Your task to perform on an android device: turn notification dots on Image 0: 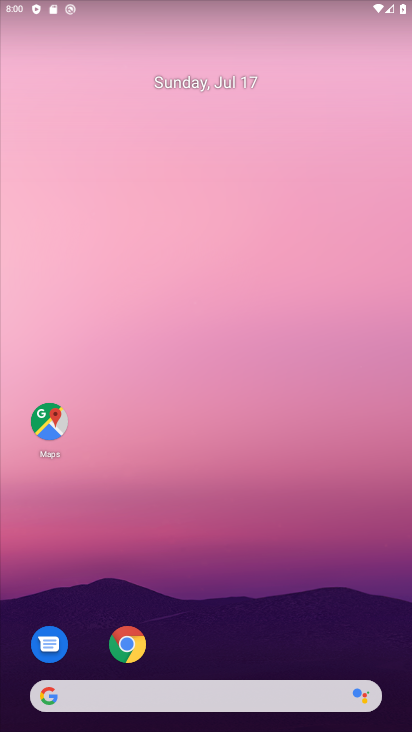
Step 0: drag from (271, 676) to (242, 31)
Your task to perform on an android device: turn notification dots on Image 1: 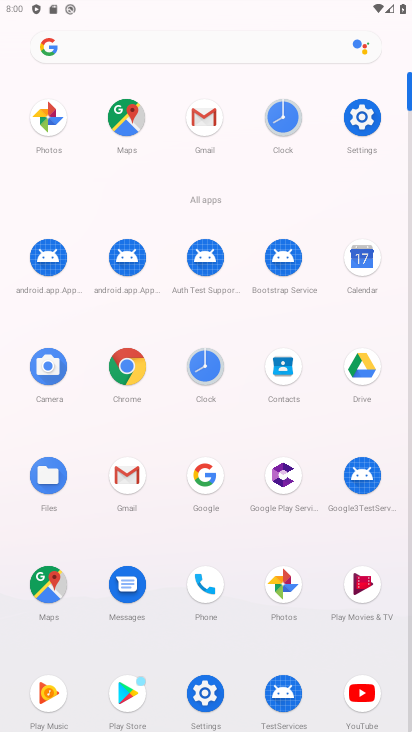
Step 1: click (364, 123)
Your task to perform on an android device: turn notification dots on Image 2: 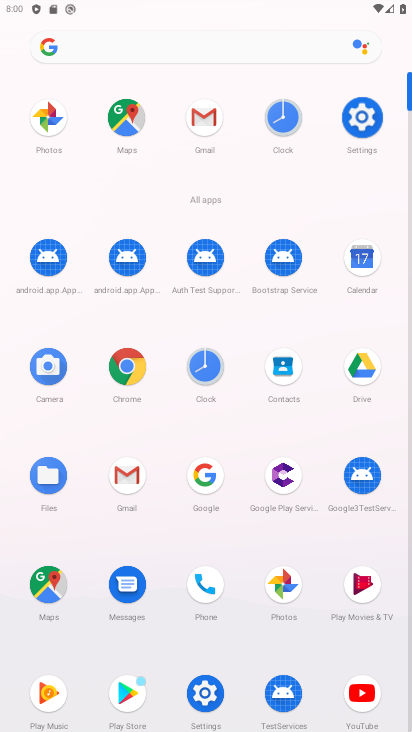
Step 2: click (358, 126)
Your task to perform on an android device: turn notification dots on Image 3: 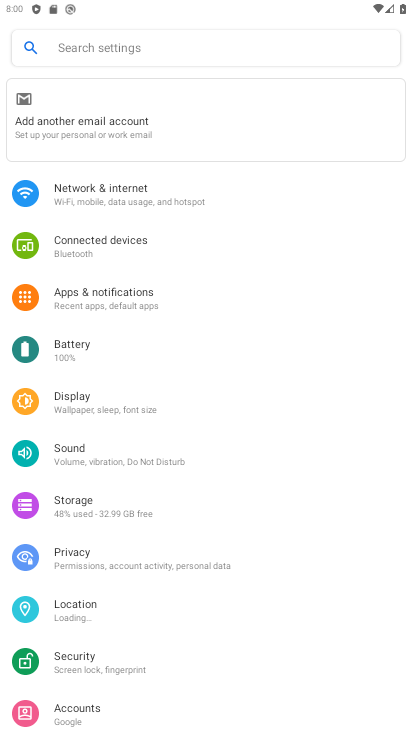
Step 3: click (118, 296)
Your task to perform on an android device: turn notification dots on Image 4: 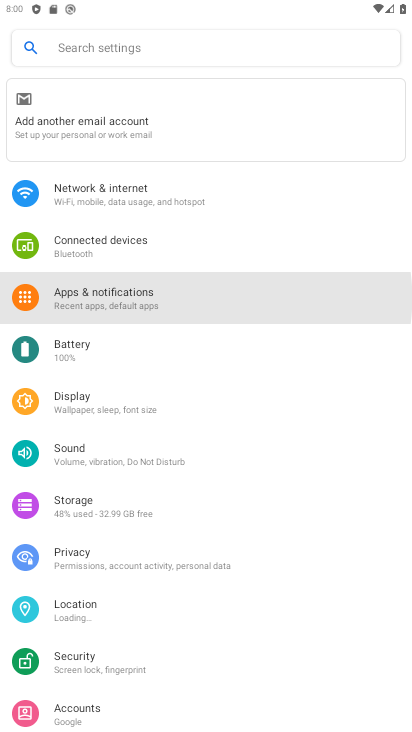
Step 4: click (114, 298)
Your task to perform on an android device: turn notification dots on Image 5: 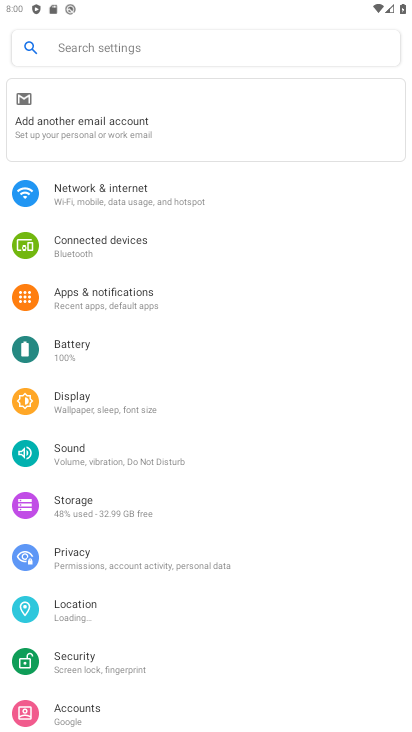
Step 5: click (114, 299)
Your task to perform on an android device: turn notification dots on Image 6: 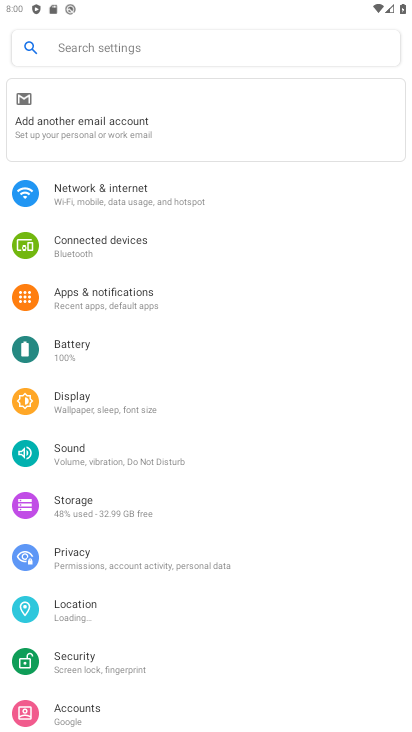
Step 6: click (113, 300)
Your task to perform on an android device: turn notification dots on Image 7: 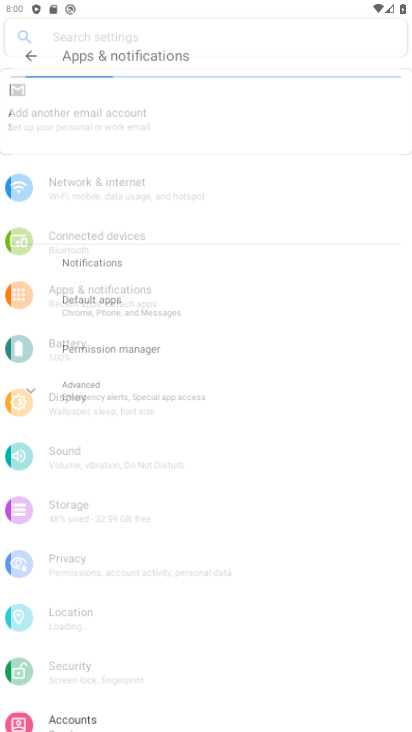
Step 7: click (101, 293)
Your task to perform on an android device: turn notification dots on Image 8: 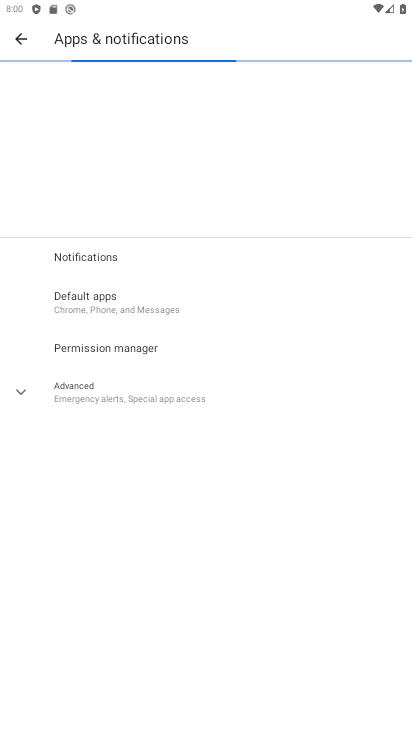
Step 8: click (101, 291)
Your task to perform on an android device: turn notification dots on Image 9: 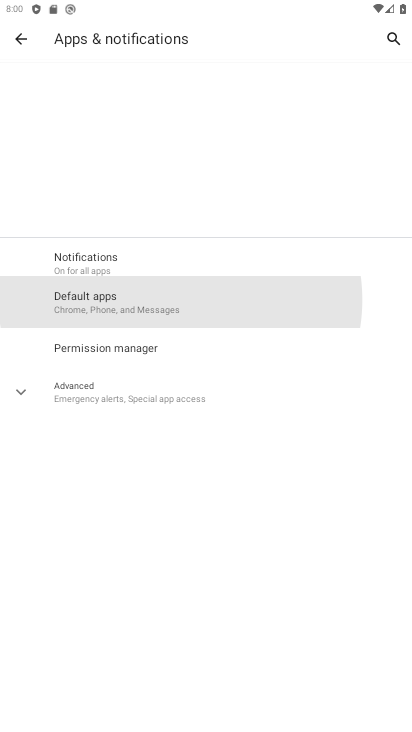
Step 9: click (99, 297)
Your task to perform on an android device: turn notification dots on Image 10: 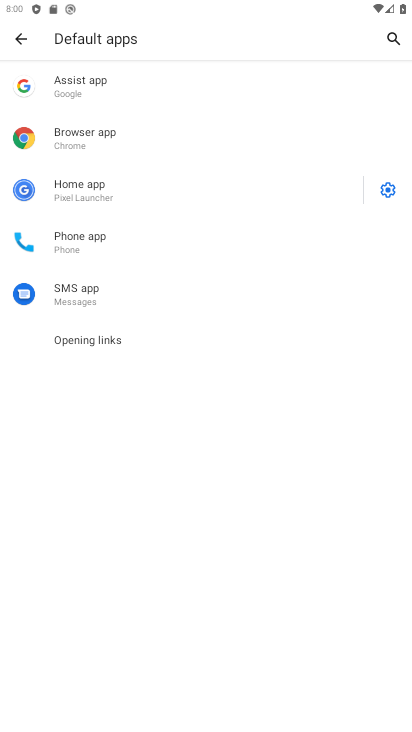
Step 10: click (15, 37)
Your task to perform on an android device: turn notification dots on Image 11: 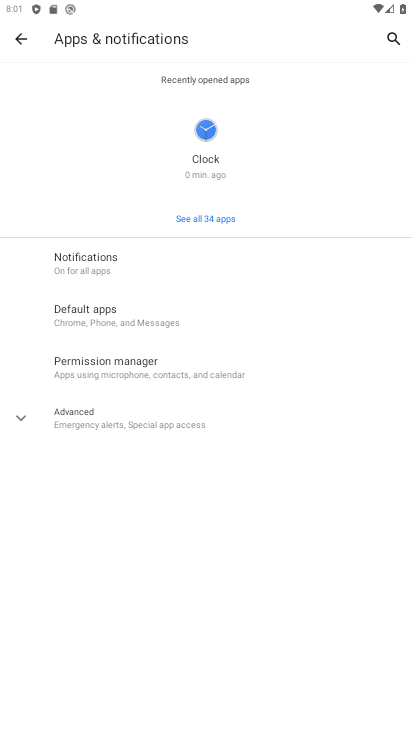
Step 11: click (93, 260)
Your task to perform on an android device: turn notification dots on Image 12: 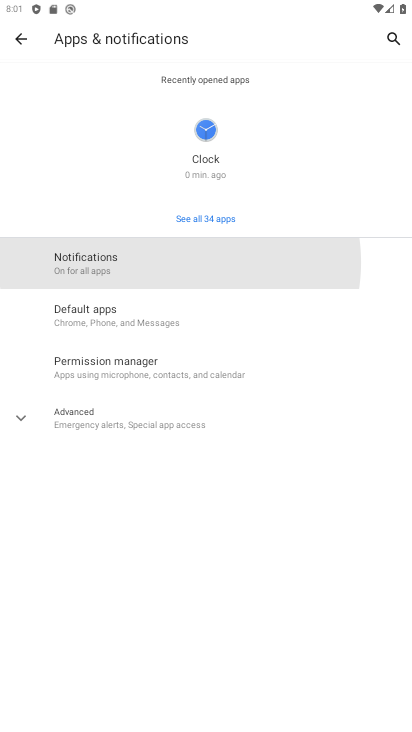
Step 12: click (95, 257)
Your task to perform on an android device: turn notification dots on Image 13: 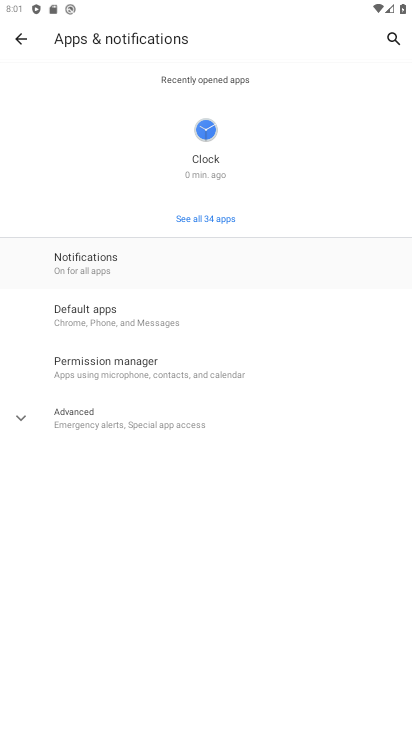
Step 13: click (96, 257)
Your task to perform on an android device: turn notification dots on Image 14: 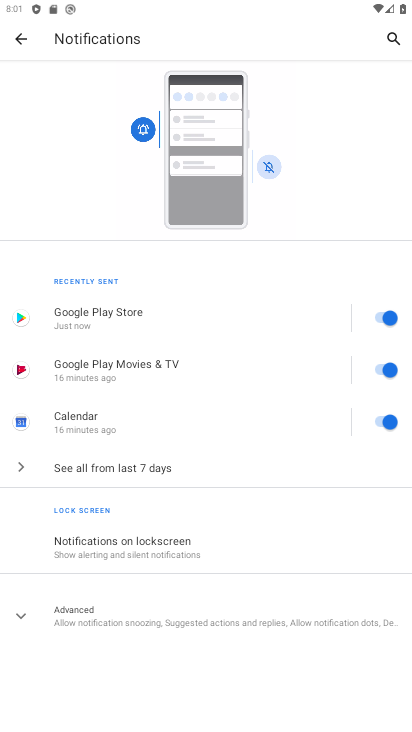
Step 14: click (79, 612)
Your task to perform on an android device: turn notification dots on Image 15: 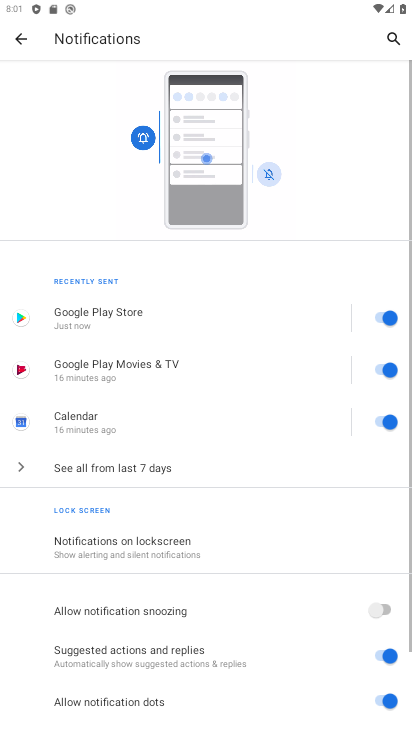
Step 15: drag from (182, 634) to (182, 162)
Your task to perform on an android device: turn notification dots on Image 16: 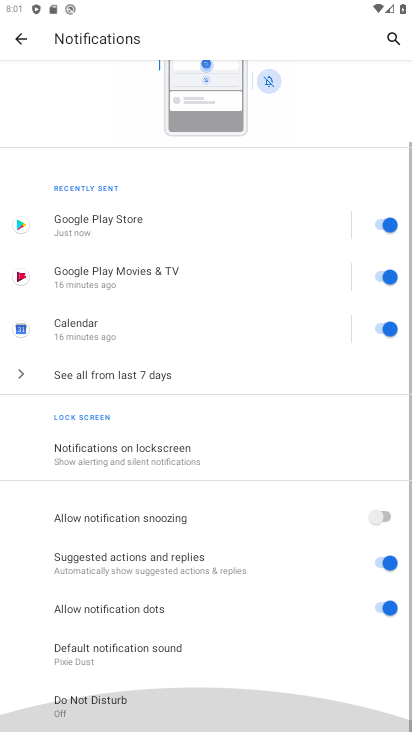
Step 16: drag from (230, 580) to (240, 336)
Your task to perform on an android device: turn notification dots on Image 17: 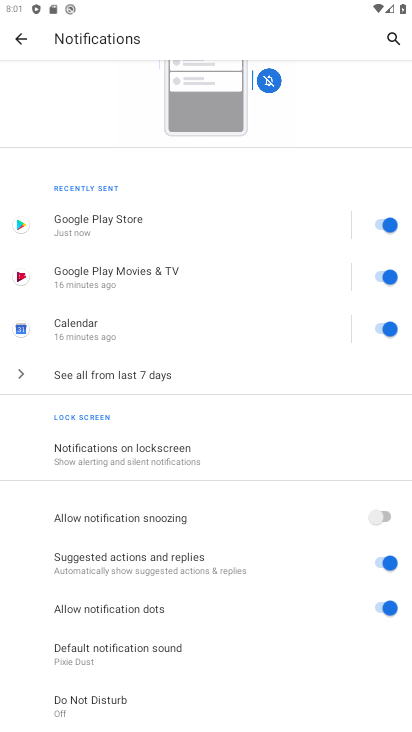
Step 17: click (382, 604)
Your task to perform on an android device: turn notification dots on Image 18: 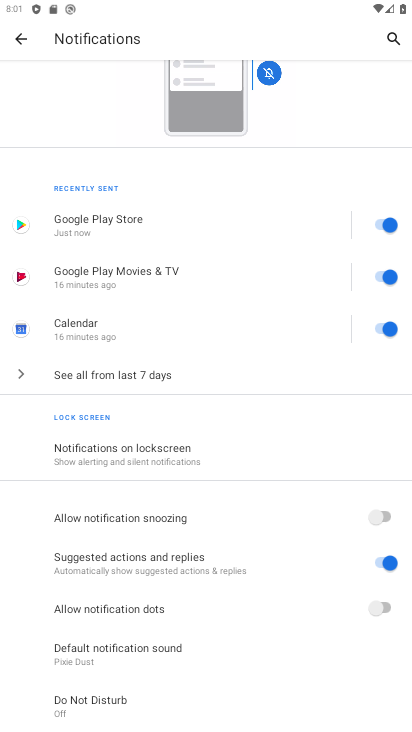
Step 18: task complete